Your task to perform on an android device: Open calendar and show me the third week of next month Image 0: 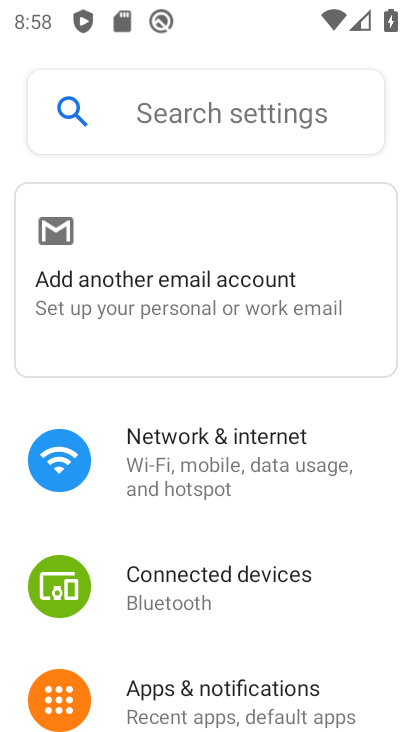
Step 0: press home button
Your task to perform on an android device: Open calendar and show me the third week of next month Image 1: 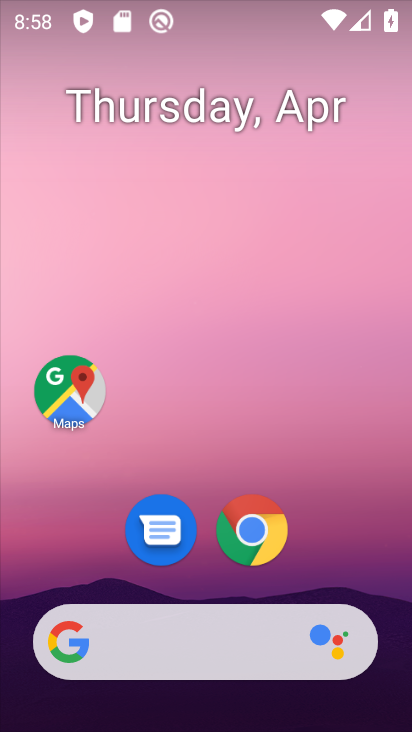
Step 1: drag from (322, 557) to (332, 106)
Your task to perform on an android device: Open calendar and show me the third week of next month Image 2: 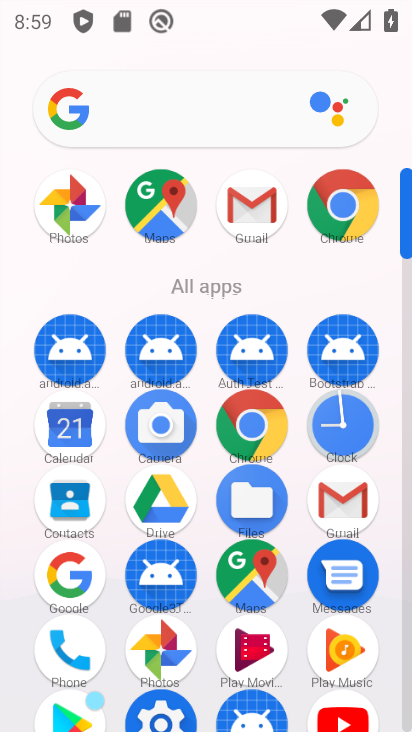
Step 2: click (65, 425)
Your task to perform on an android device: Open calendar and show me the third week of next month Image 3: 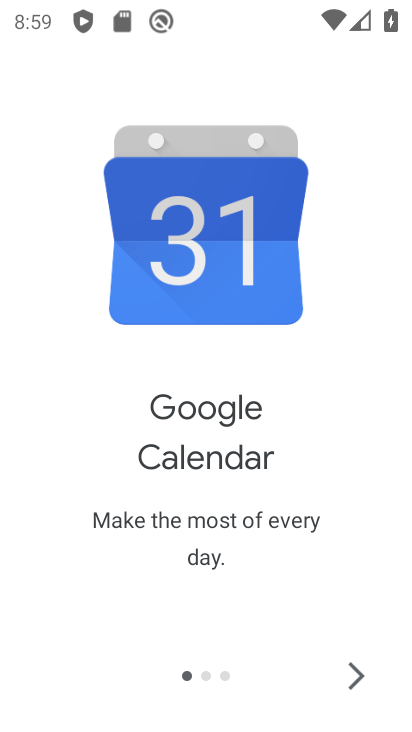
Step 3: click (352, 680)
Your task to perform on an android device: Open calendar and show me the third week of next month Image 4: 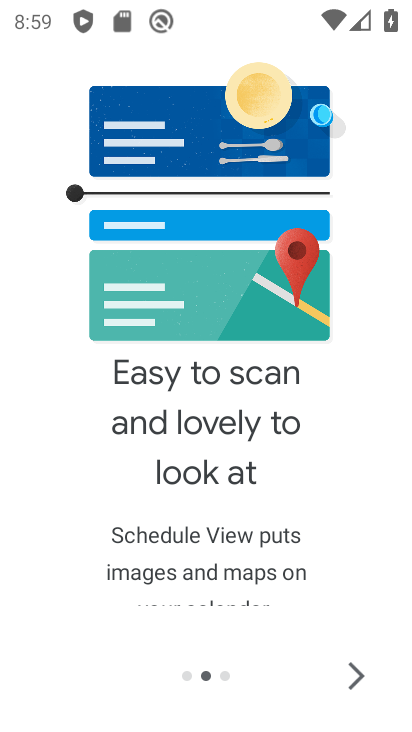
Step 4: click (354, 676)
Your task to perform on an android device: Open calendar and show me the third week of next month Image 5: 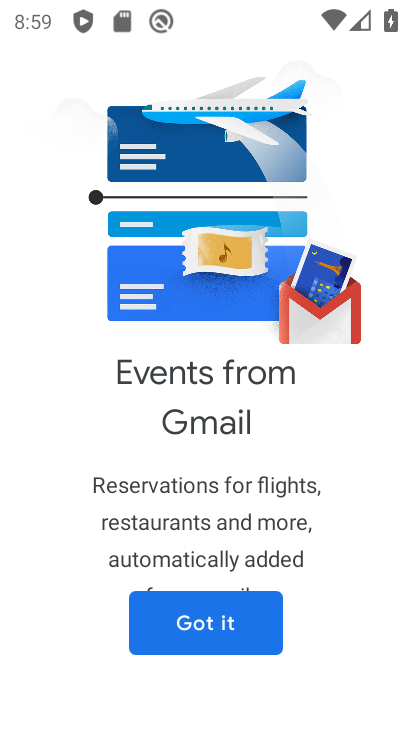
Step 5: click (254, 619)
Your task to perform on an android device: Open calendar and show me the third week of next month Image 6: 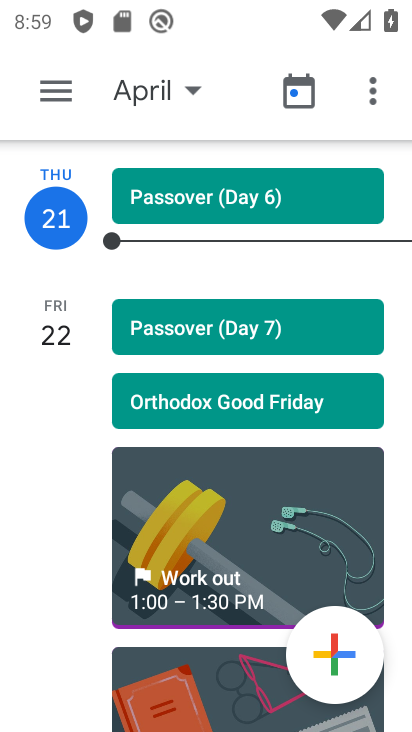
Step 6: click (194, 84)
Your task to perform on an android device: Open calendar and show me the third week of next month Image 7: 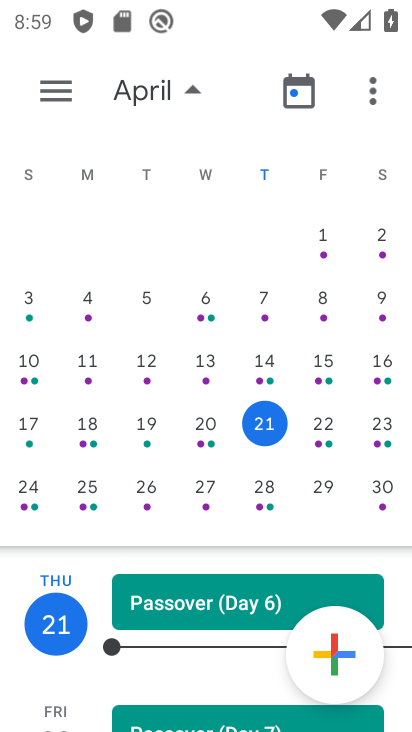
Step 7: drag from (394, 263) to (30, 272)
Your task to perform on an android device: Open calendar and show me the third week of next month Image 8: 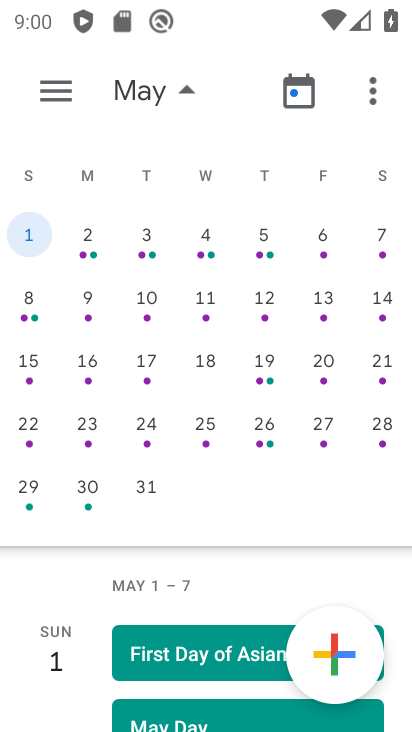
Step 8: click (267, 362)
Your task to perform on an android device: Open calendar and show me the third week of next month Image 9: 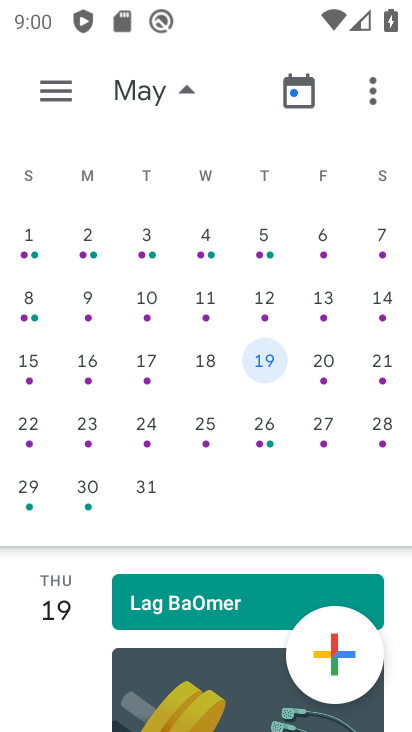
Step 9: task complete